Your task to perform on an android device: Is it going to rain today? Image 0: 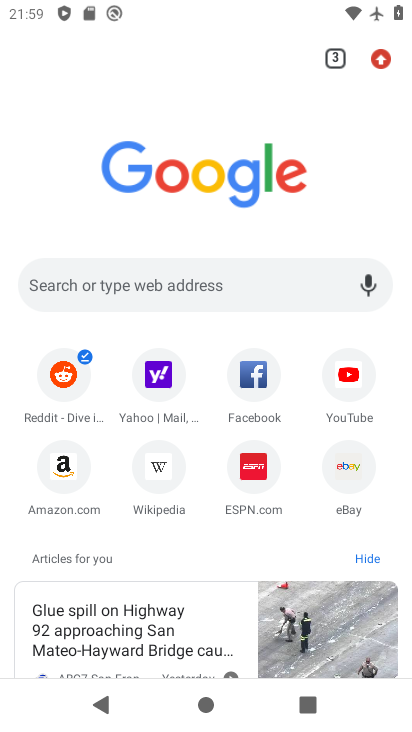
Step 0: press home button
Your task to perform on an android device: Is it going to rain today? Image 1: 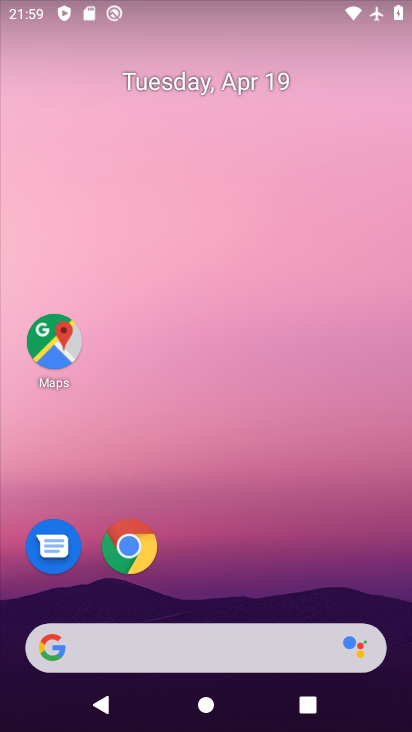
Step 1: click (198, 637)
Your task to perform on an android device: Is it going to rain today? Image 2: 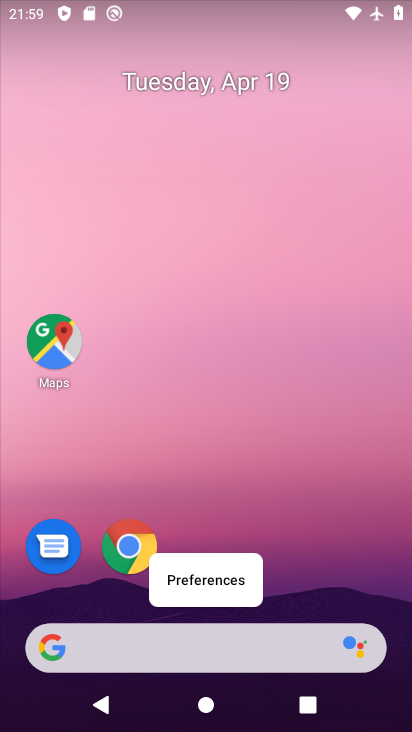
Step 2: click (198, 644)
Your task to perform on an android device: Is it going to rain today? Image 3: 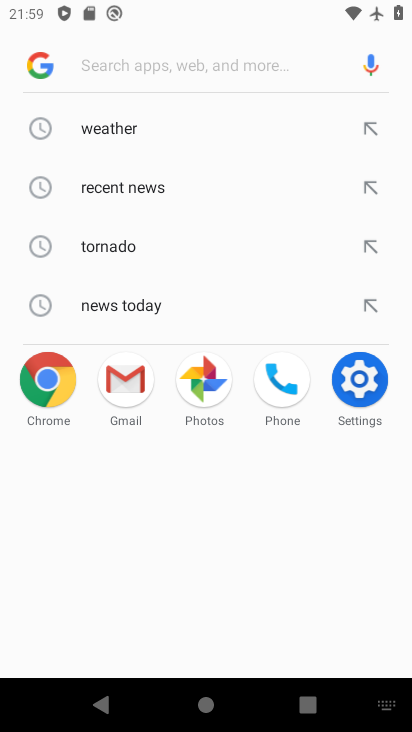
Step 3: click (113, 120)
Your task to perform on an android device: Is it going to rain today? Image 4: 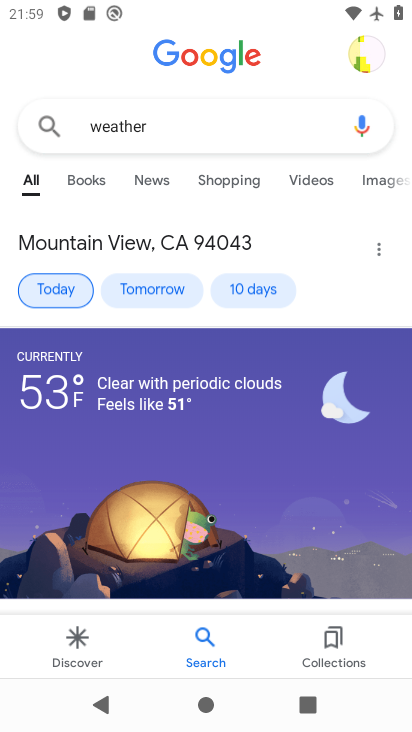
Step 4: task complete